Your task to perform on an android device: delete location history Image 0: 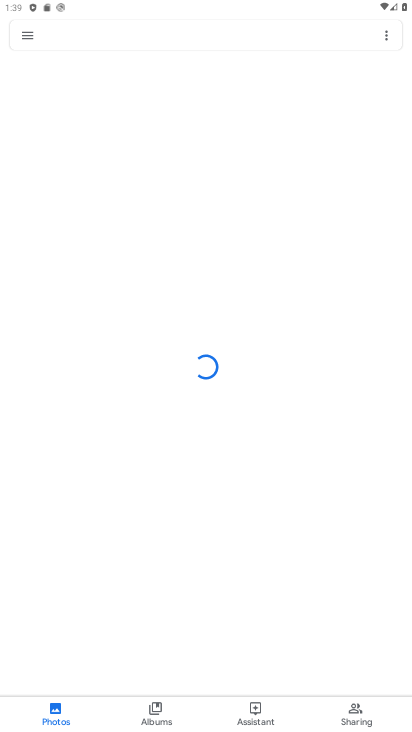
Step 0: press home button
Your task to perform on an android device: delete location history Image 1: 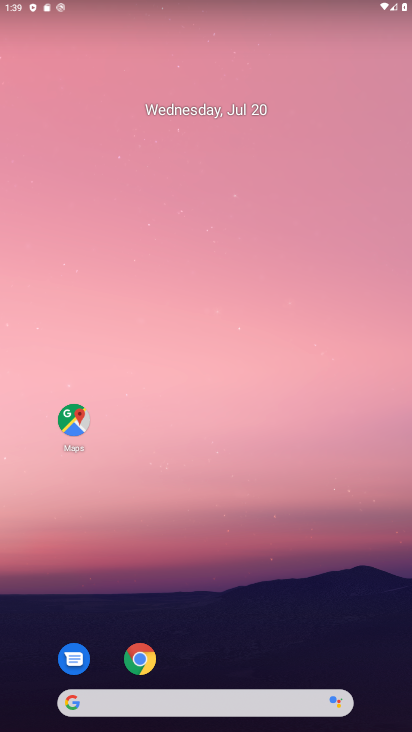
Step 1: drag from (36, 693) to (212, 120)
Your task to perform on an android device: delete location history Image 2: 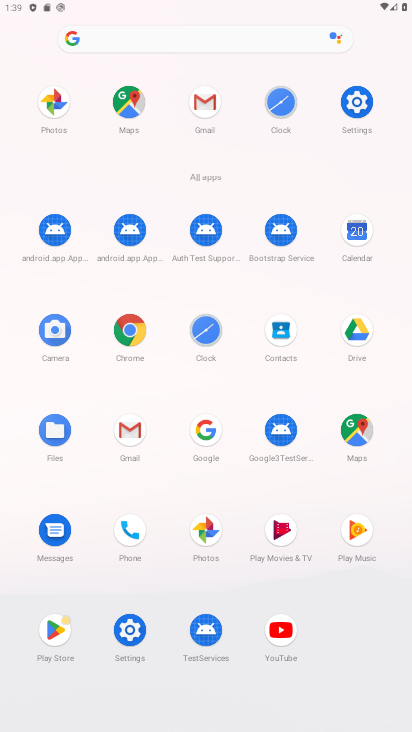
Step 2: click (132, 643)
Your task to perform on an android device: delete location history Image 3: 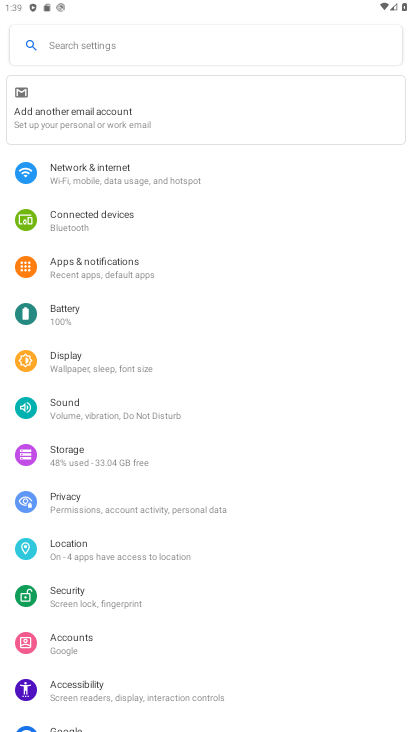
Step 3: click (112, 548)
Your task to perform on an android device: delete location history Image 4: 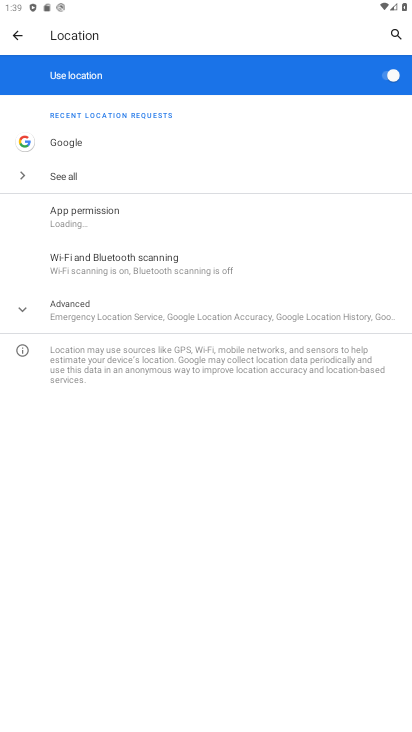
Step 4: click (94, 311)
Your task to perform on an android device: delete location history Image 5: 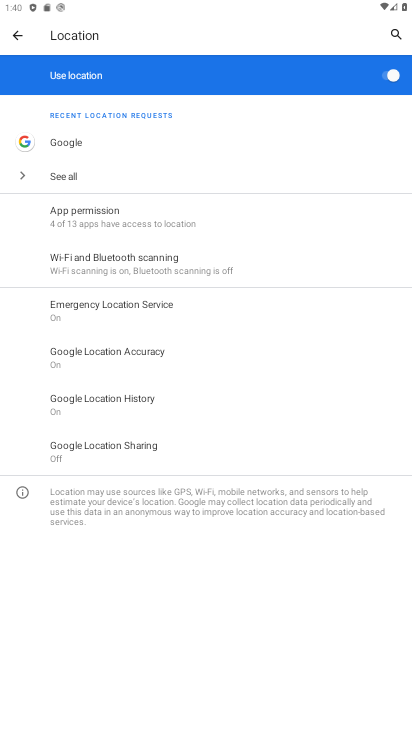
Step 5: click (95, 411)
Your task to perform on an android device: delete location history Image 6: 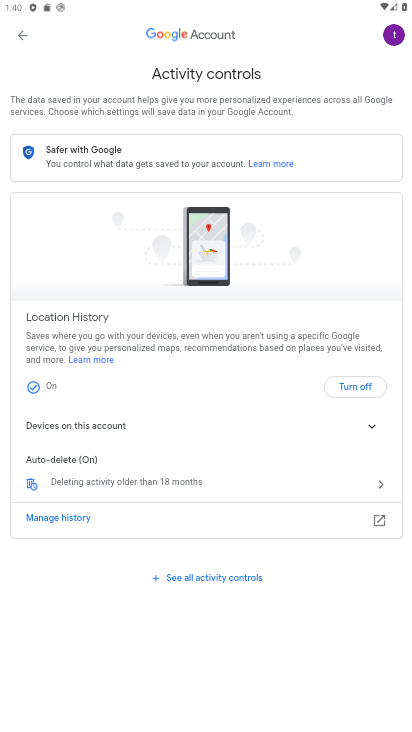
Step 6: click (81, 520)
Your task to perform on an android device: delete location history Image 7: 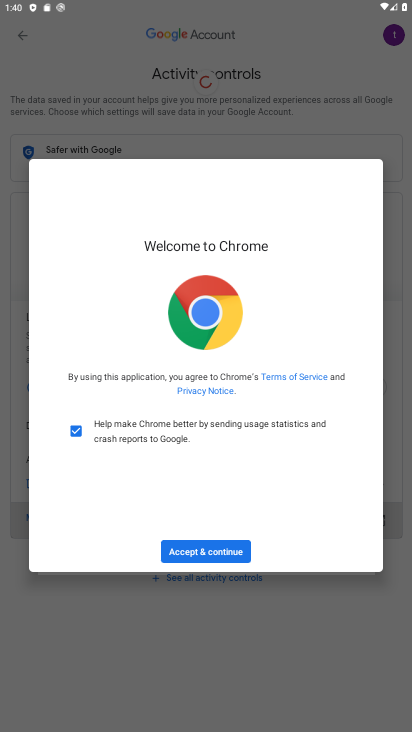
Step 7: click (224, 544)
Your task to perform on an android device: delete location history Image 8: 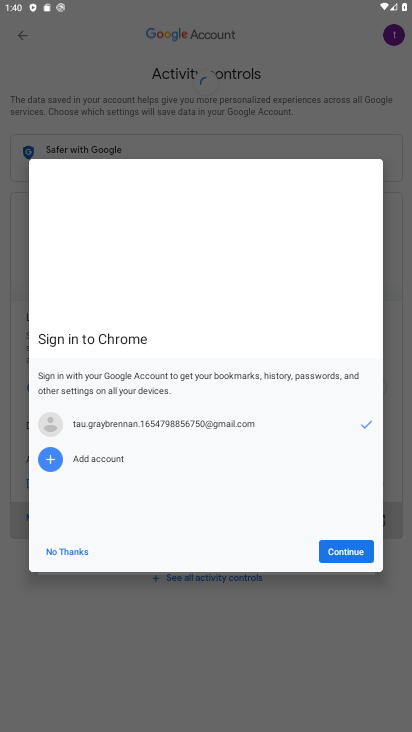
Step 8: click (364, 545)
Your task to perform on an android device: delete location history Image 9: 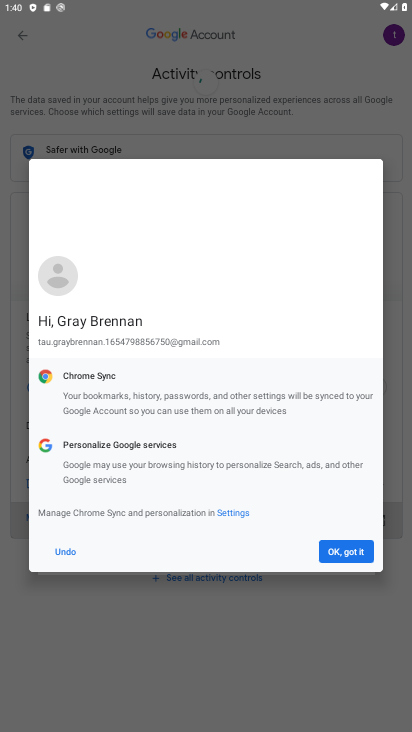
Step 9: click (360, 546)
Your task to perform on an android device: delete location history Image 10: 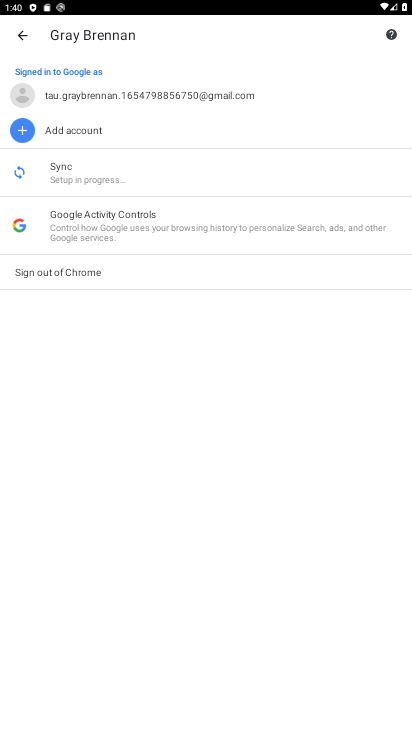
Step 10: task complete